Your task to perform on an android device: allow cookies in the chrome app Image 0: 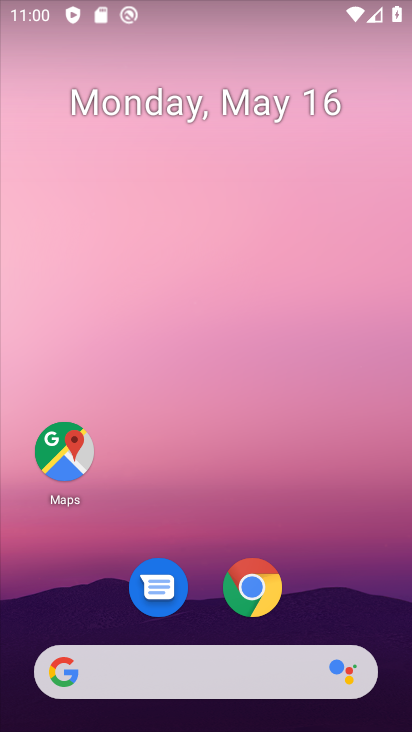
Step 0: drag from (392, 638) to (280, 112)
Your task to perform on an android device: allow cookies in the chrome app Image 1: 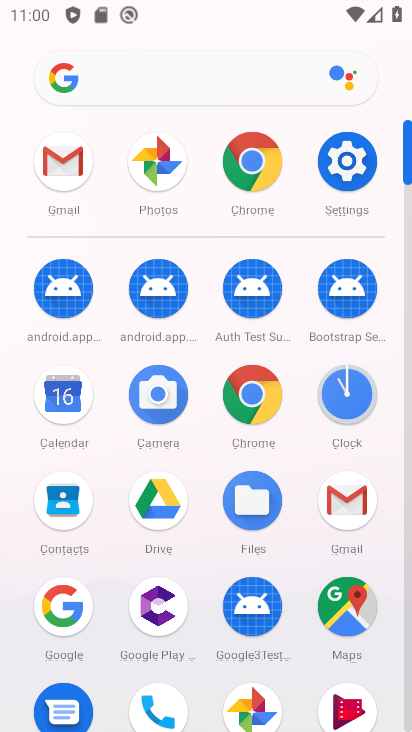
Step 1: click (251, 165)
Your task to perform on an android device: allow cookies in the chrome app Image 2: 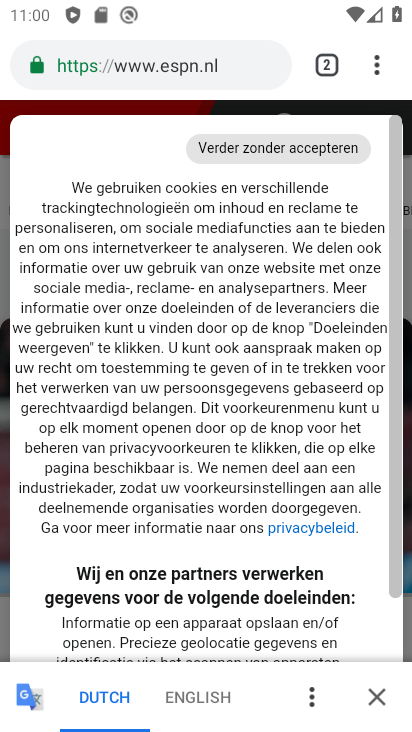
Step 2: press back button
Your task to perform on an android device: allow cookies in the chrome app Image 3: 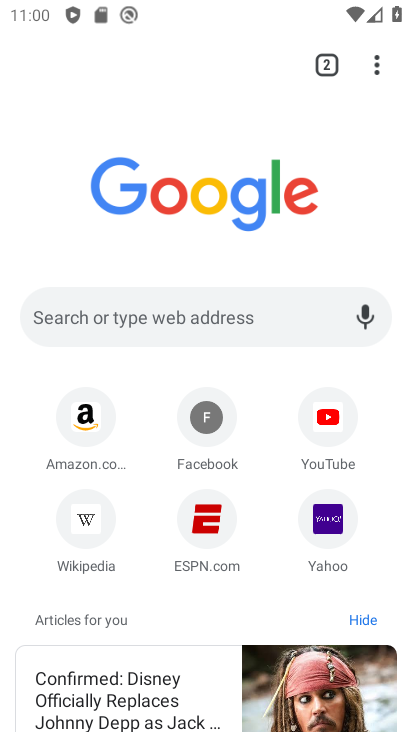
Step 3: click (381, 57)
Your task to perform on an android device: allow cookies in the chrome app Image 4: 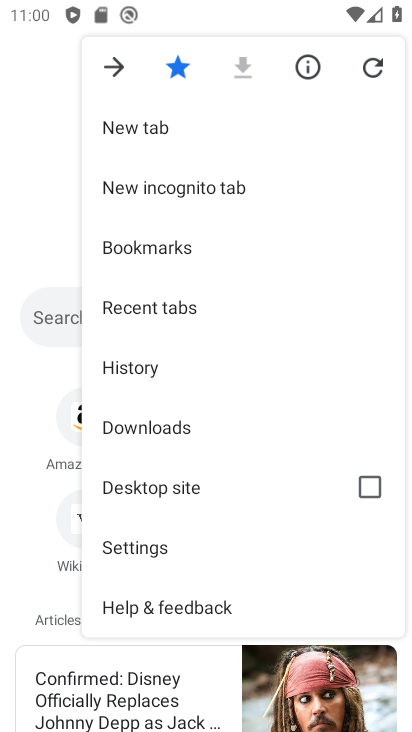
Step 4: click (167, 365)
Your task to perform on an android device: allow cookies in the chrome app Image 5: 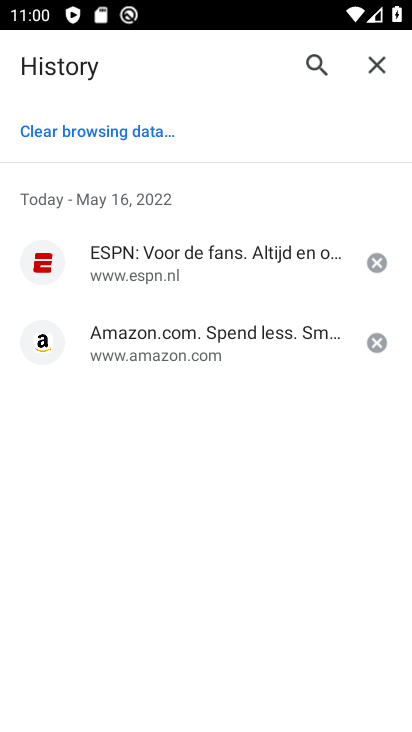
Step 5: click (94, 138)
Your task to perform on an android device: allow cookies in the chrome app Image 6: 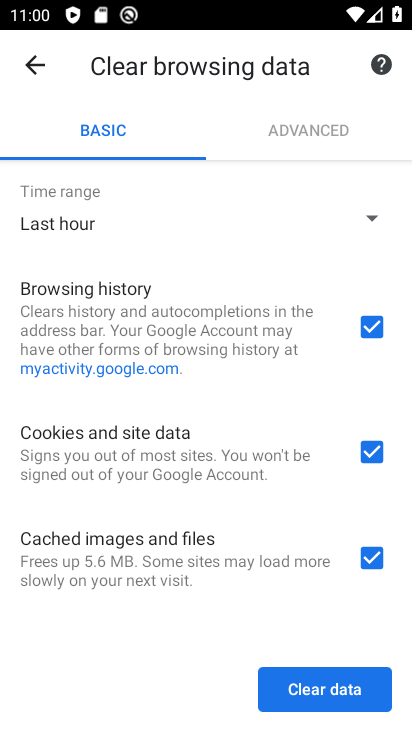
Step 6: task complete